Your task to perform on an android device: turn on sleep mode Image 0: 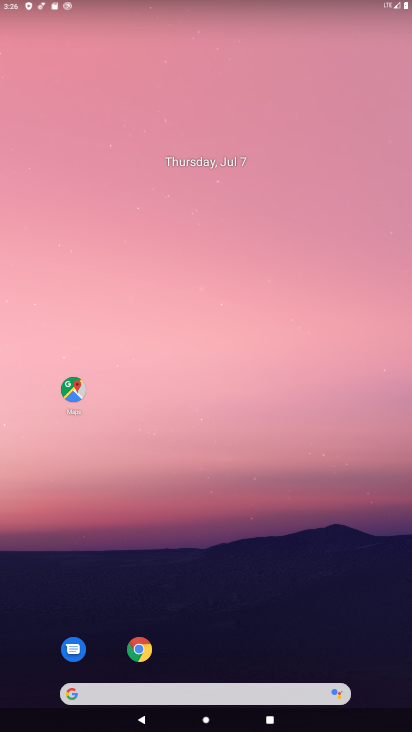
Step 0: drag from (329, 568) to (319, 235)
Your task to perform on an android device: turn on sleep mode Image 1: 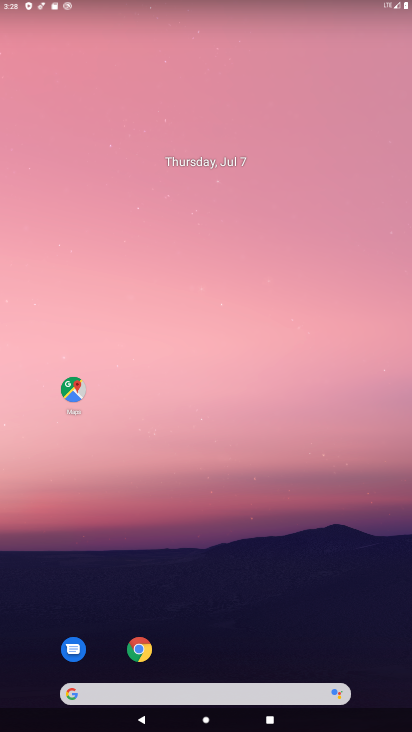
Step 1: drag from (186, 625) to (230, 351)
Your task to perform on an android device: turn on sleep mode Image 2: 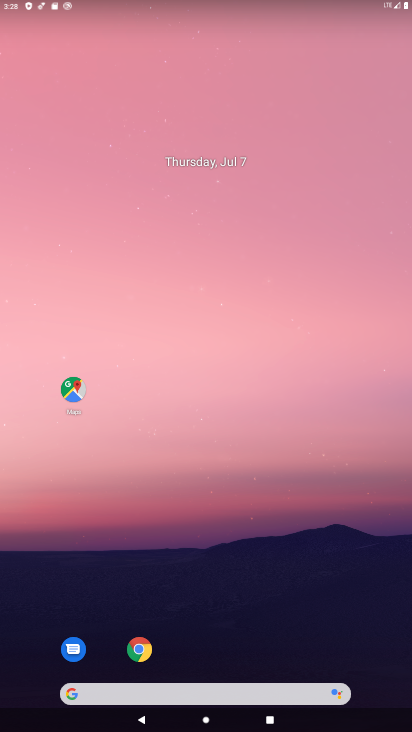
Step 2: drag from (223, 582) to (216, 100)
Your task to perform on an android device: turn on sleep mode Image 3: 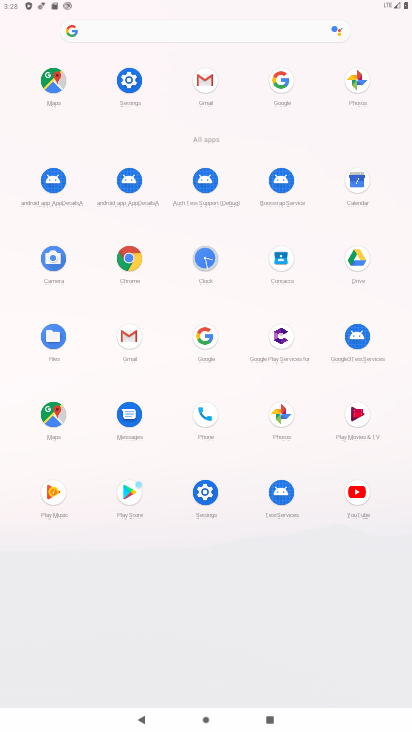
Step 3: click (132, 83)
Your task to perform on an android device: turn on sleep mode Image 4: 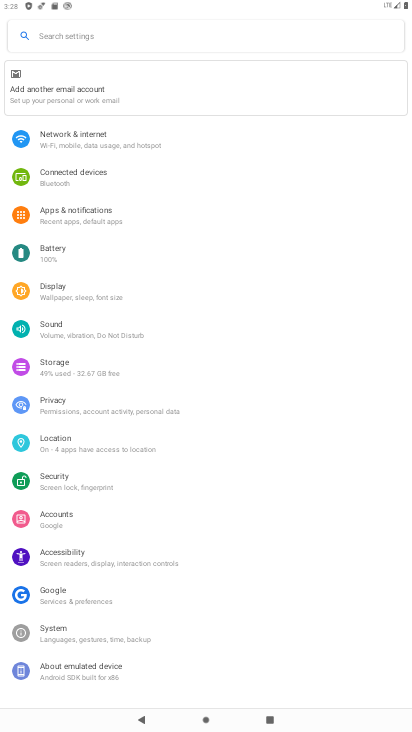
Step 4: click (103, 291)
Your task to perform on an android device: turn on sleep mode Image 5: 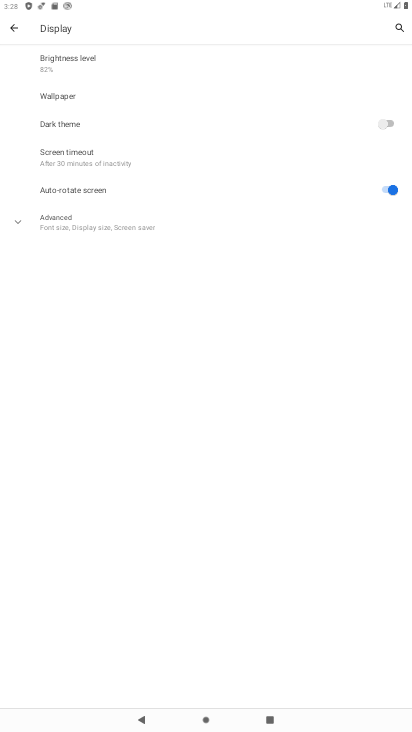
Step 5: click (112, 224)
Your task to perform on an android device: turn on sleep mode Image 6: 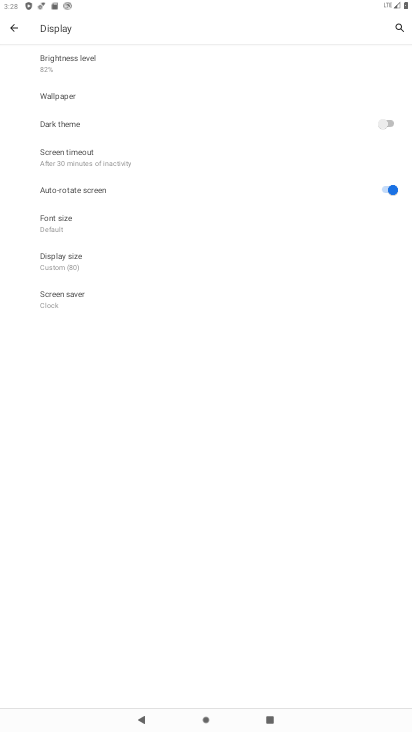
Step 6: task complete